Your task to perform on an android device: Is it going to rain tomorrow? Image 0: 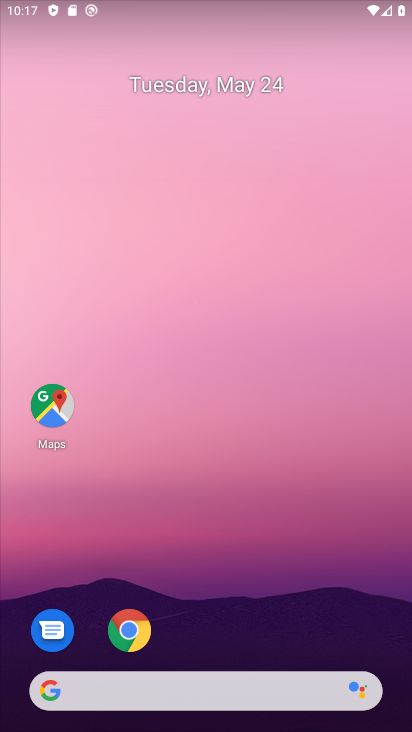
Step 0: press home button
Your task to perform on an android device: Is it going to rain tomorrow? Image 1: 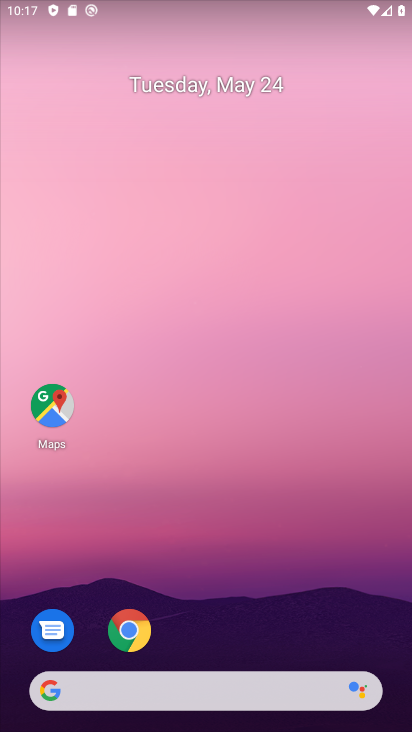
Step 1: drag from (7, 306) to (411, 290)
Your task to perform on an android device: Is it going to rain tomorrow? Image 2: 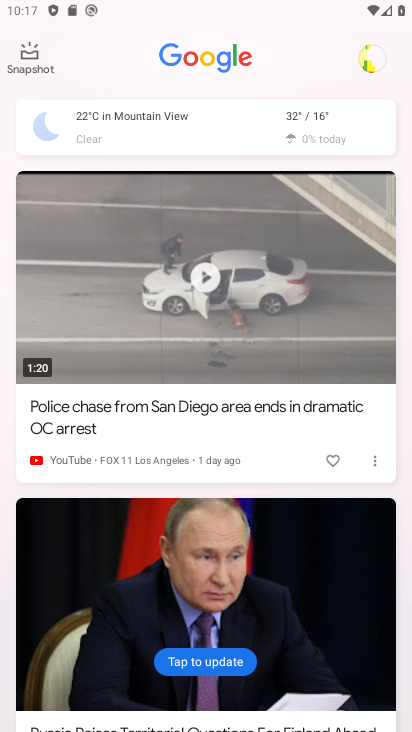
Step 2: click (255, 126)
Your task to perform on an android device: Is it going to rain tomorrow? Image 3: 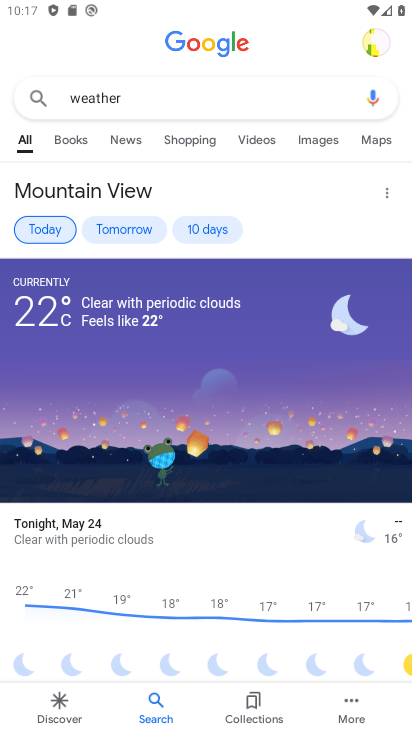
Step 3: task complete